Your task to perform on an android device: turn on wifi Image 0: 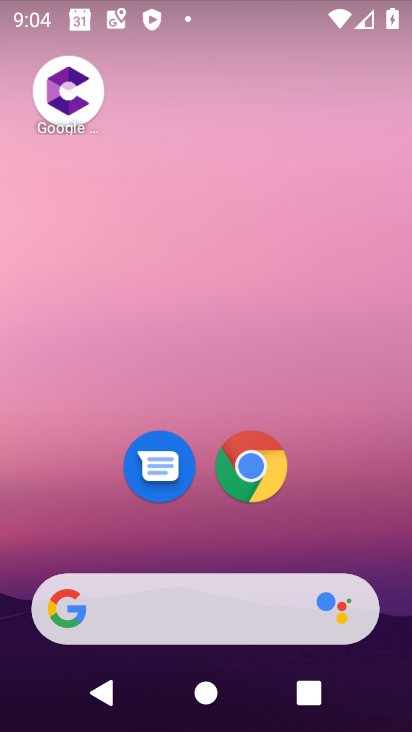
Step 0: drag from (353, 515) to (366, 34)
Your task to perform on an android device: turn on wifi Image 1: 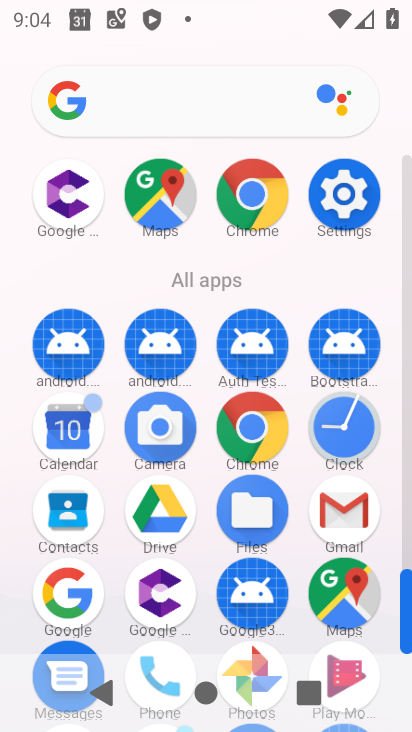
Step 1: click (364, 186)
Your task to perform on an android device: turn on wifi Image 2: 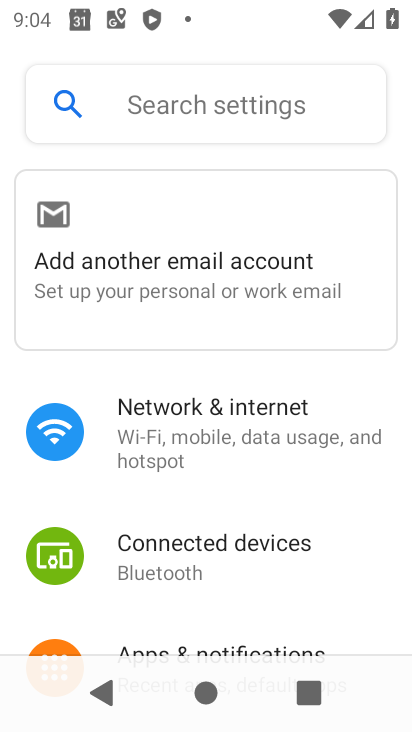
Step 2: click (195, 441)
Your task to perform on an android device: turn on wifi Image 3: 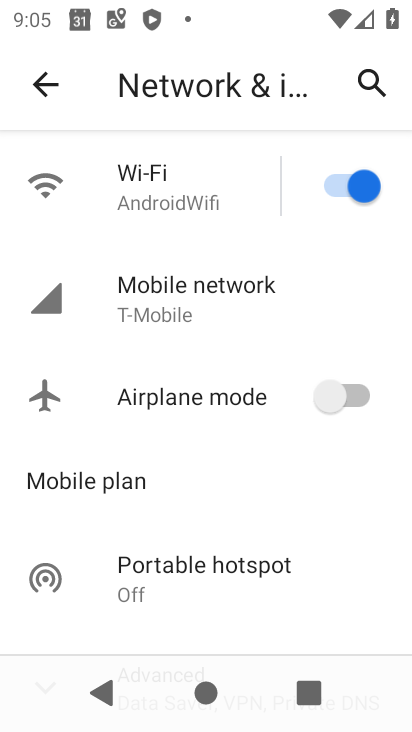
Step 3: task complete